Your task to perform on an android device: Show me the alarms in the clock app Image 0: 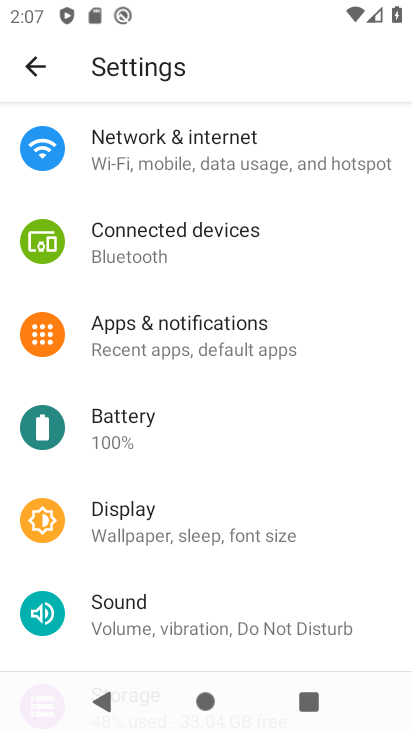
Step 0: press home button
Your task to perform on an android device: Show me the alarms in the clock app Image 1: 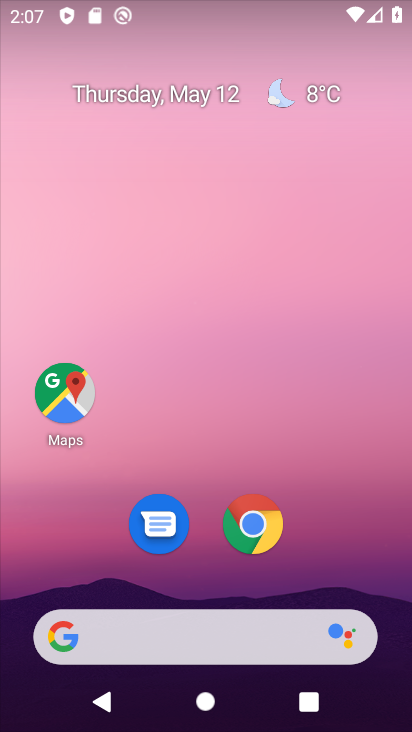
Step 1: drag from (257, 456) to (275, 26)
Your task to perform on an android device: Show me the alarms in the clock app Image 2: 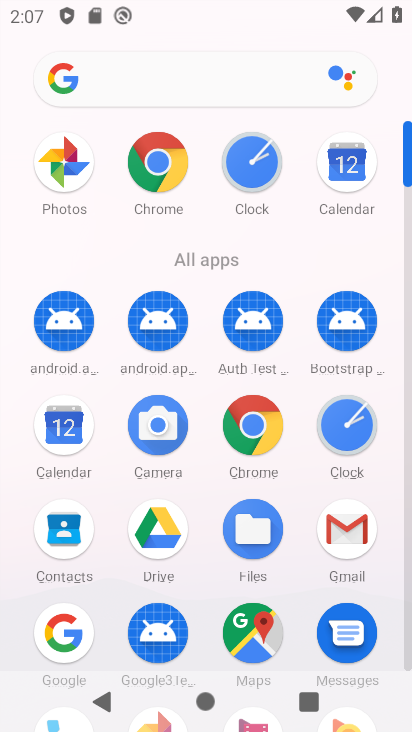
Step 2: click (250, 170)
Your task to perform on an android device: Show me the alarms in the clock app Image 3: 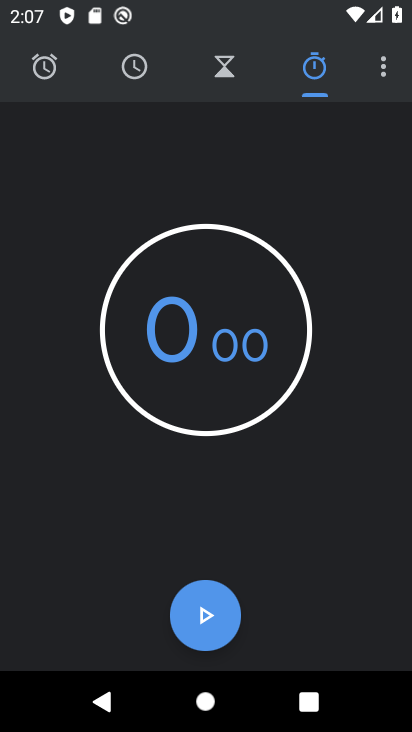
Step 3: click (42, 69)
Your task to perform on an android device: Show me the alarms in the clock app Image 4: 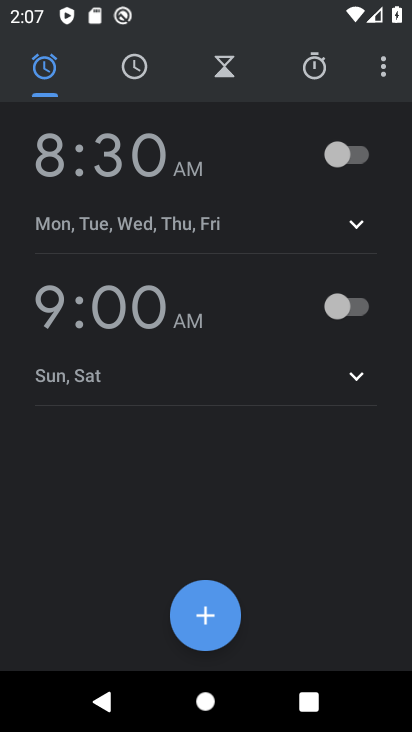
Step 4: task complete